Your task to perform on an android device: Open the web browser Image 0: 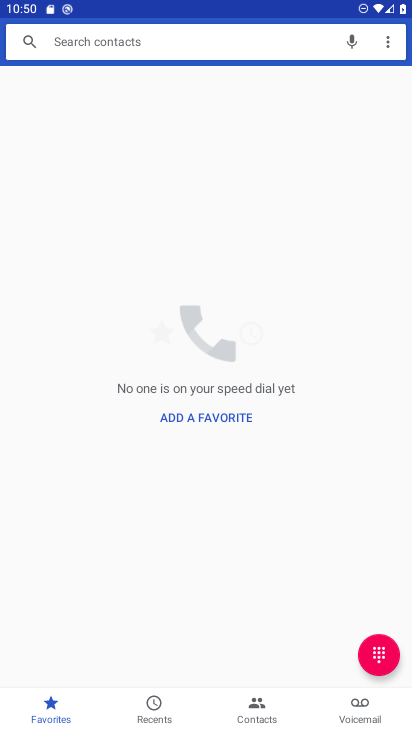
Step 0: press home button
Your task to perform on an android device: Open the web browser Image 1: 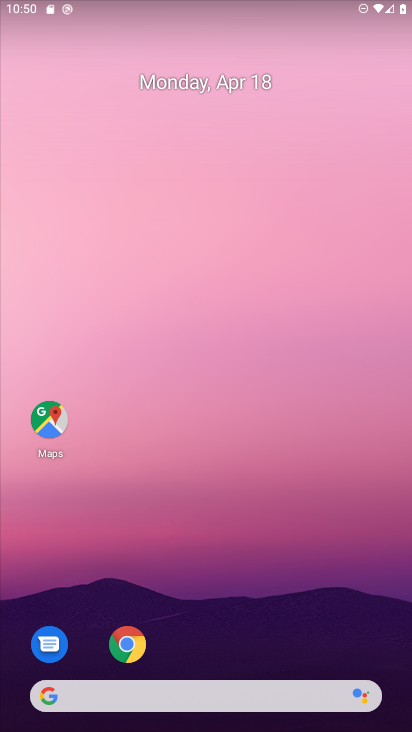
Step 1: click (115, 651)
Your task to perform on an android device: Open the web browser Image 2: 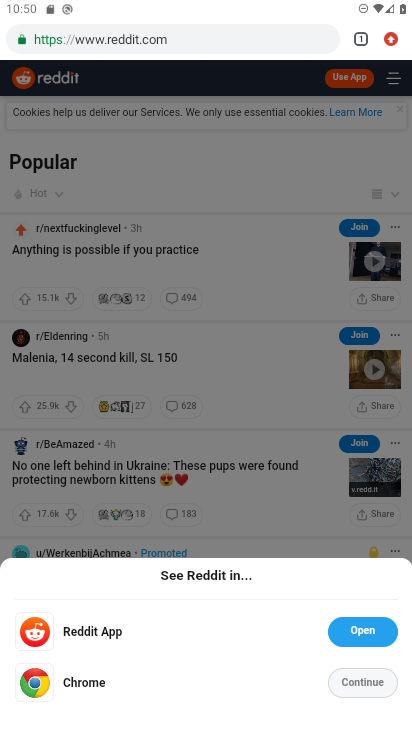
Step 2: click (364, 690)
Your task to perform on an android device: Open the web browser Image 3: 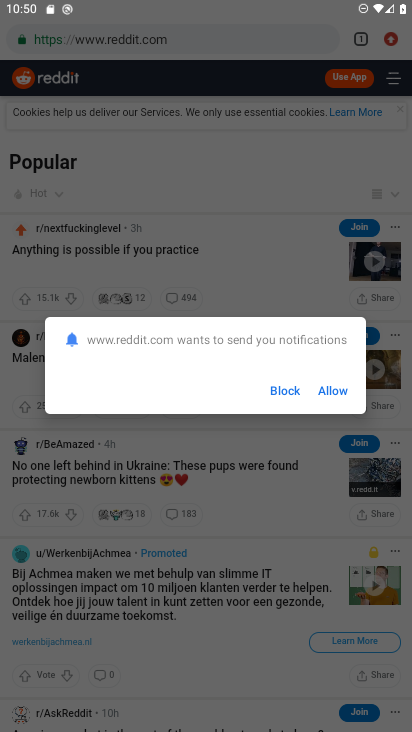
Step 3: task complete